Your task to perform on an android device: open the mobile data screen to see how much data has been used Image 0: 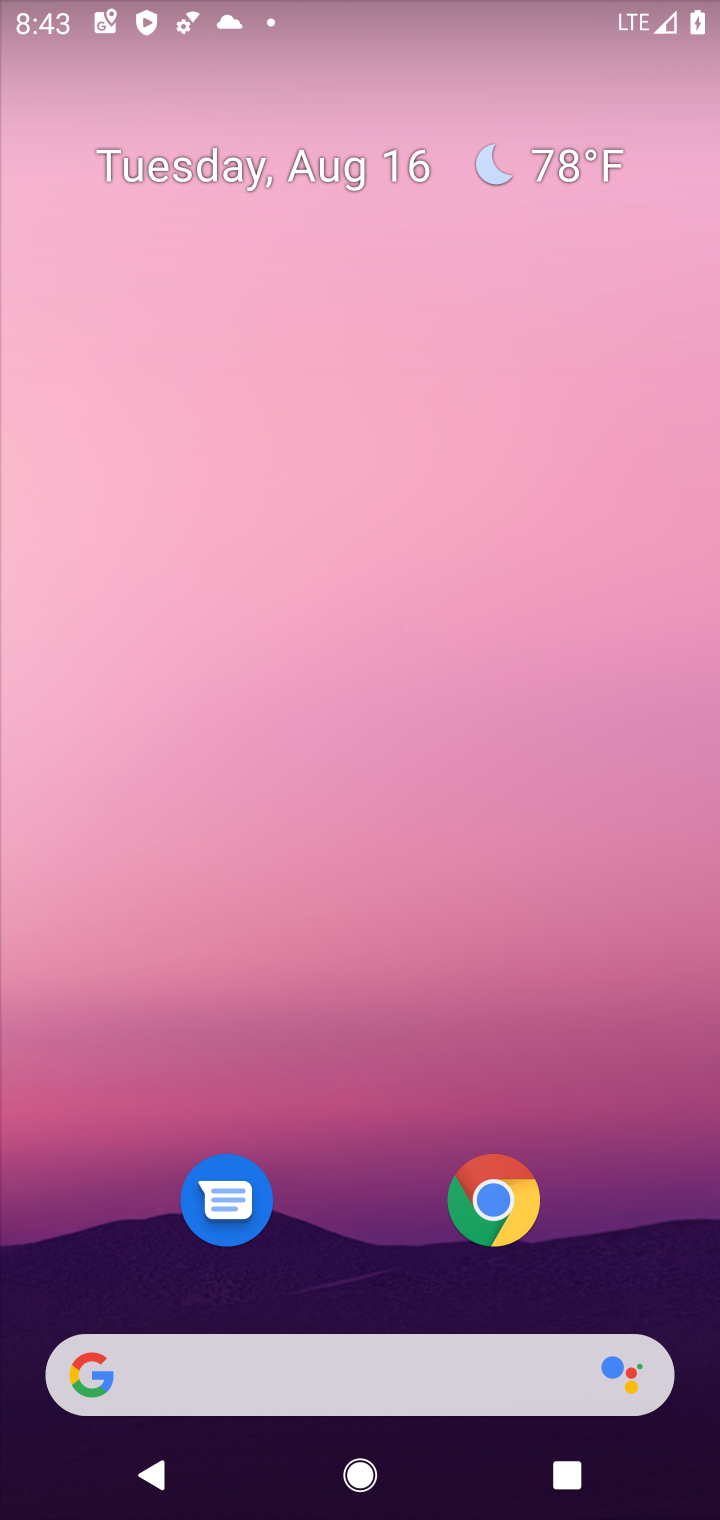
Step 0: drag from (669, 1194) to (591, 245)
Your task to perform on an android device: open the mobile data screen to see how much data has been used Image 1: 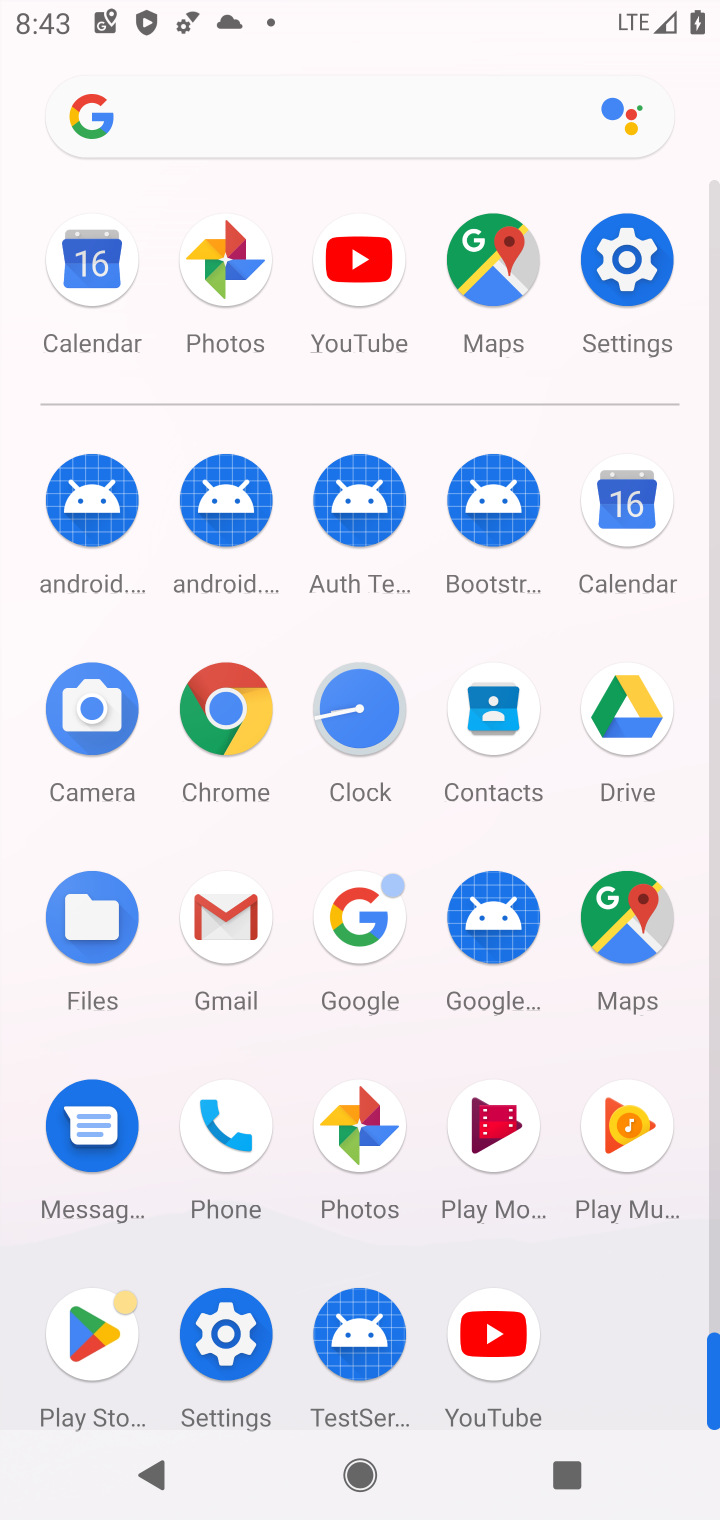
Step 1: click (227, 1335)
Your task to perform on an android device: open the mobile data screen to see how much data has been used Image 2: 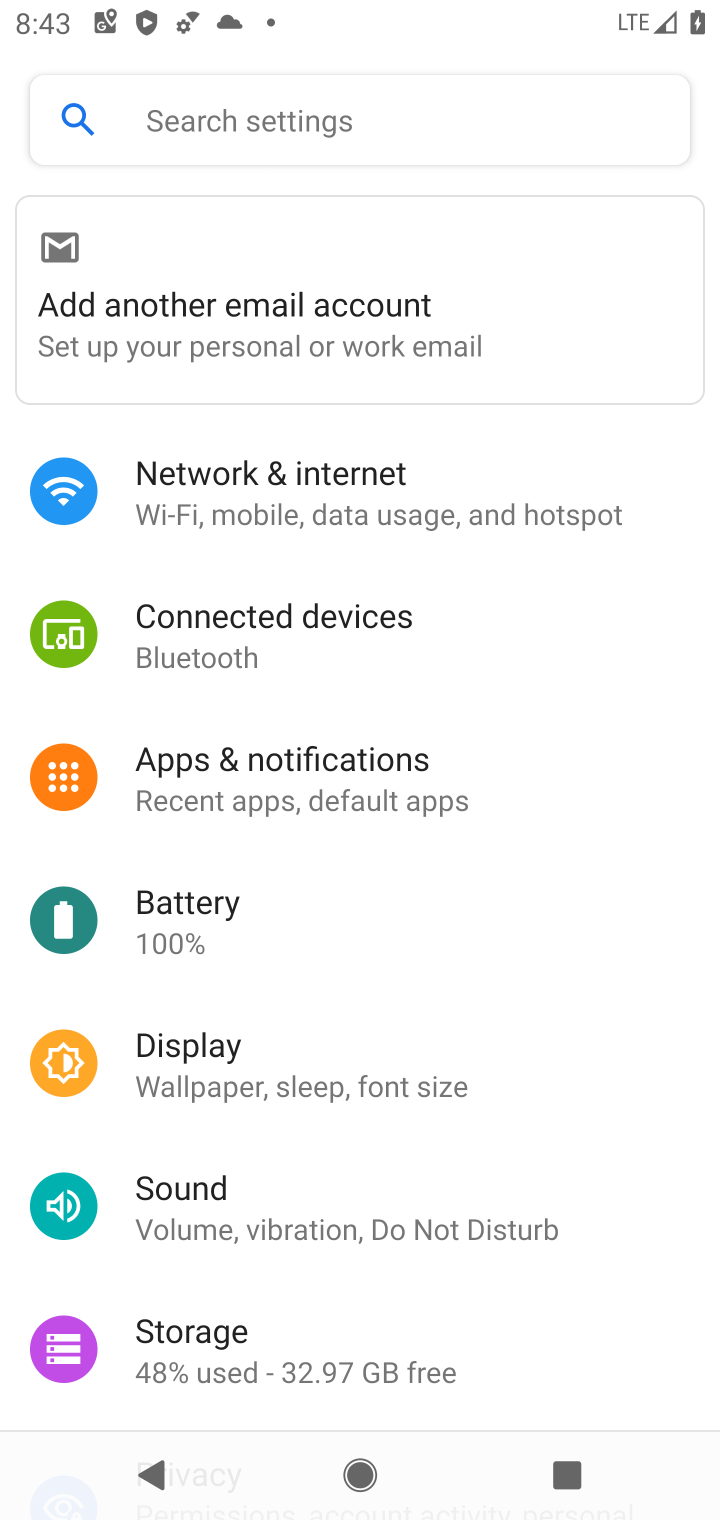
Step 2: click (261, 493)
Your task to perform on an android device: open the mobile data screen to see how much data has been used Image 3: 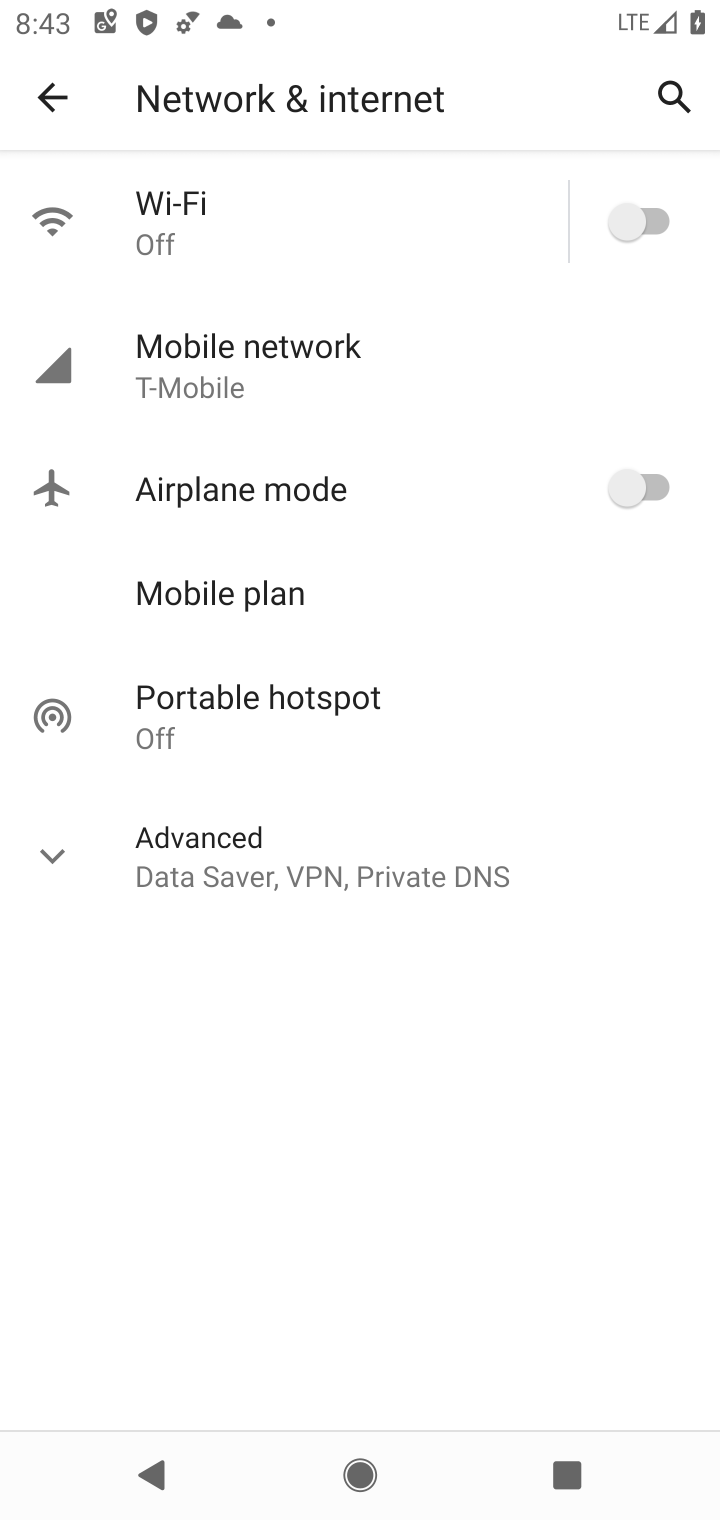
Step 3: click (225, 358)
Your task to perform on an android device: open the mobile data screen to see how much data has been used Image 4: 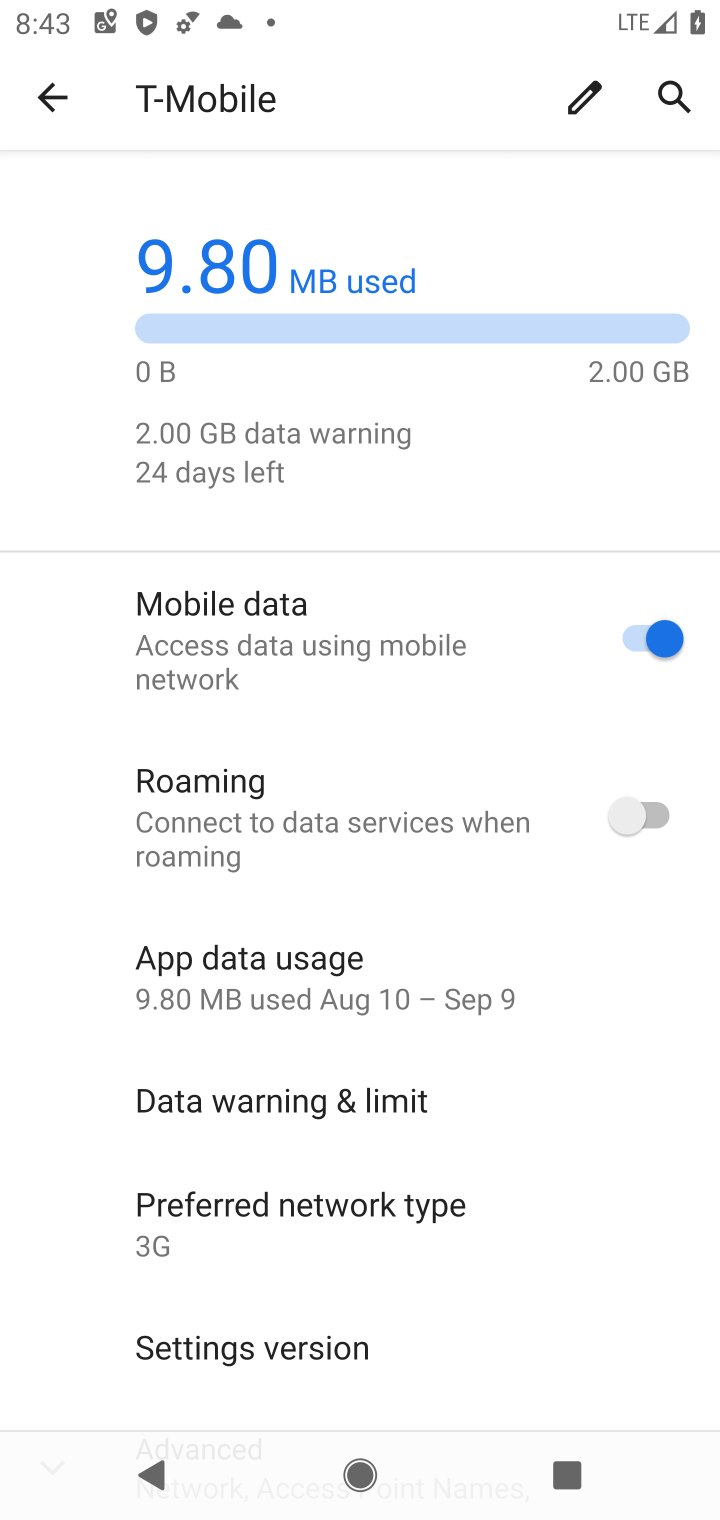
Step 4: task complete